Your task to perform on an android device: Search for hotels in NYC Image 0: 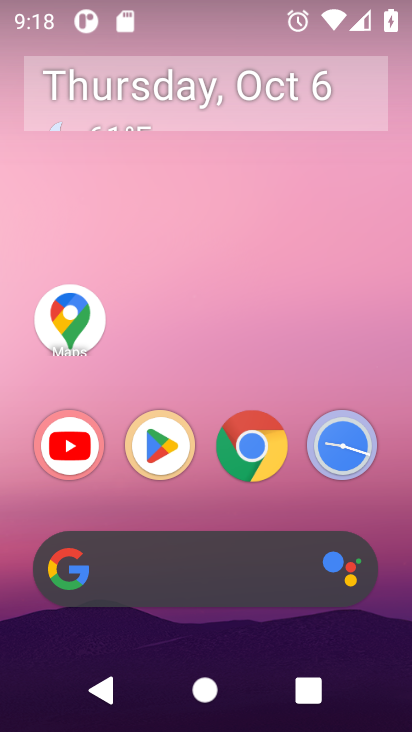
Step 0: click (204, 564)
Your task to perform on an android device: Search for hotels in NYC Image 1: 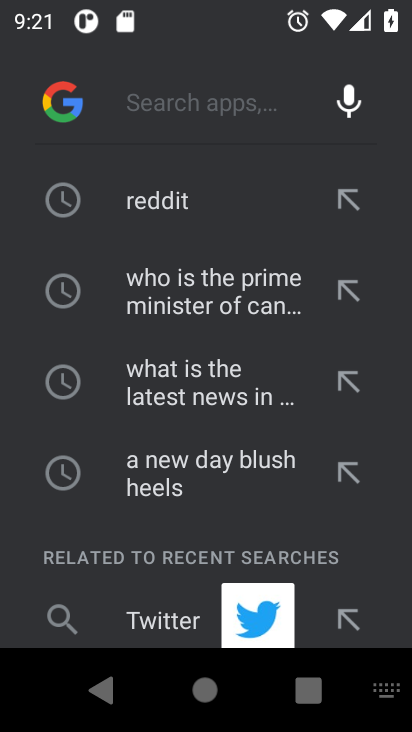
Step 1: type "Search for hotels in NYC"
Your task to perform on an android device: Search for hotels in NYC Image 2: 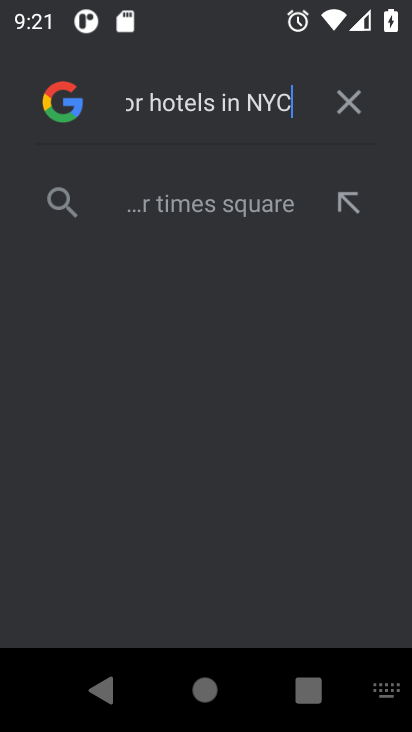
Step 2: click (171, 130)
Your task to perform on an android device: Search for hotels in NYC Image 3: 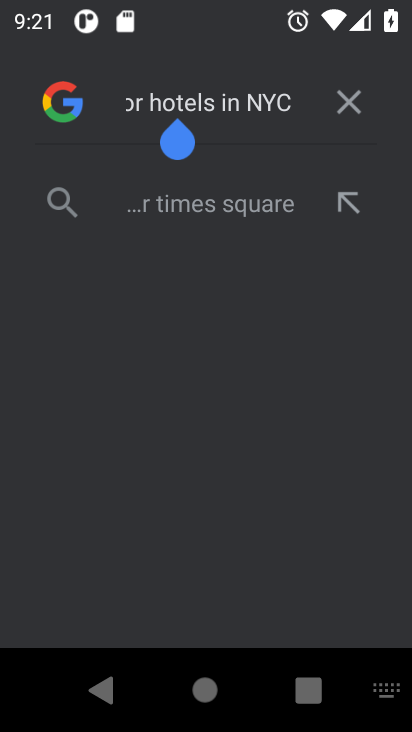
Step 3: task complete